Your task to perform on an android device: Empty the shopping cart on costco.com. Add "acer nitro" to the cart on costco.com Image 0: 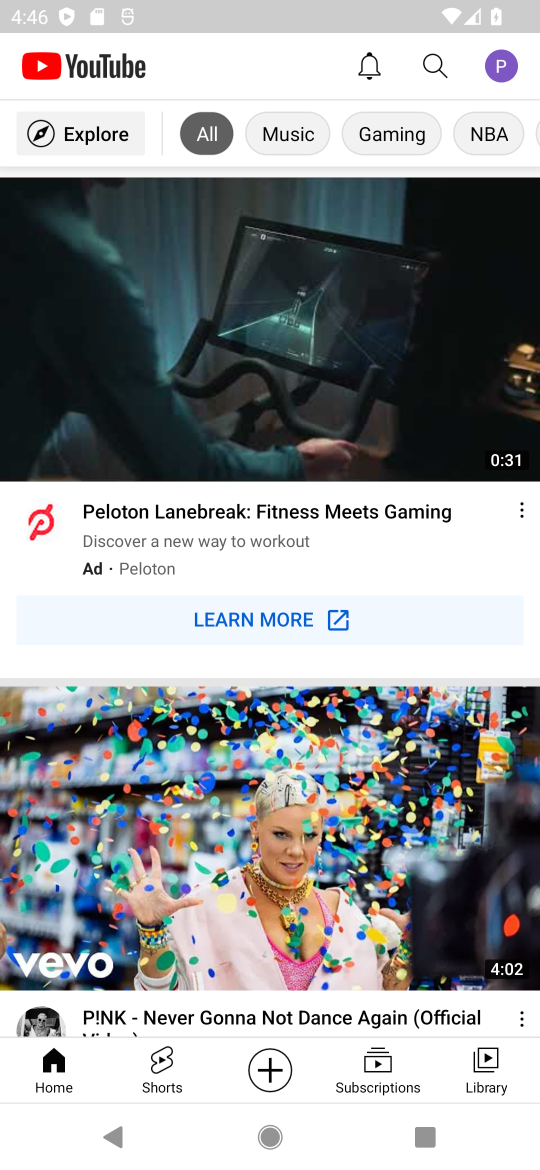
Step 0: press home button
Your task to perform on an android device: Empty the shopping cart on costco.com. Add "acer nitro" to the cart on costco.com Image 1: 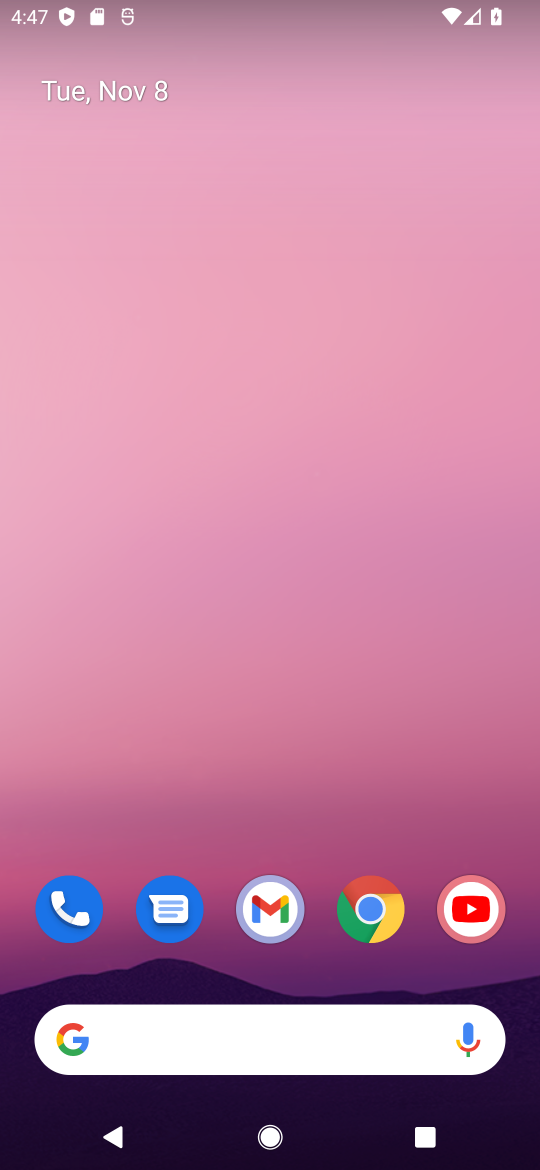
Step 1: click (373, 923)
Your task to perform on an android device: Empty the shopping cart on costco.com. Add "acer nitro" to the cart on costco.com Image 2: 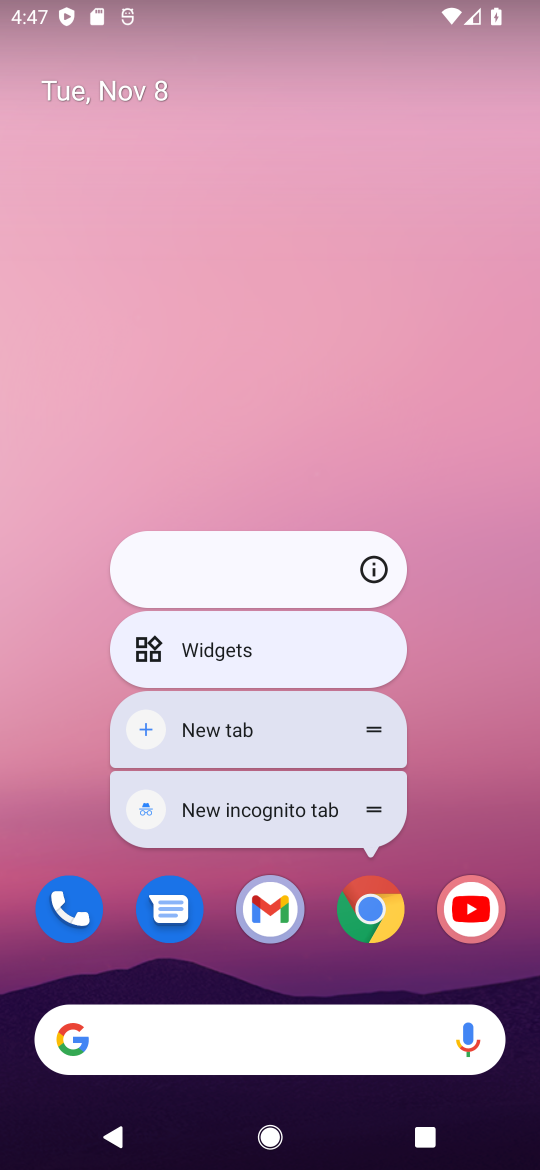
Step 2: click (368, 914)
Your task to perform on an android device: Empty the shopping cart on costco.com. Add "acer nitro" to the cart on costco.com Image 3: 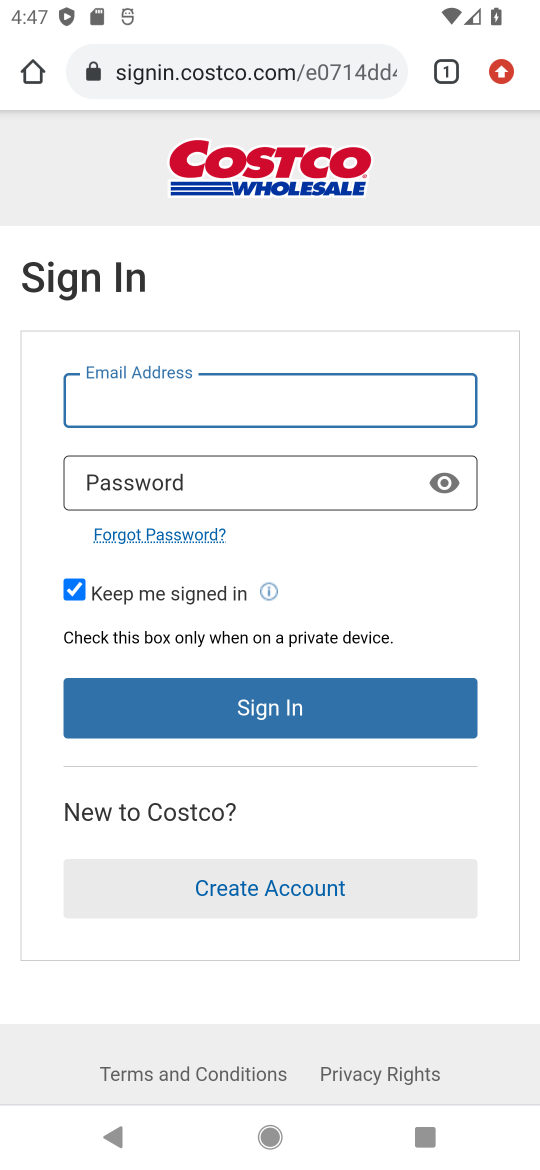
Step 3: press back button
Your task to perform on an android device: Empty the shopping cart on costco.com. Add "acer nitro" to the cart on costco.com Image 4: 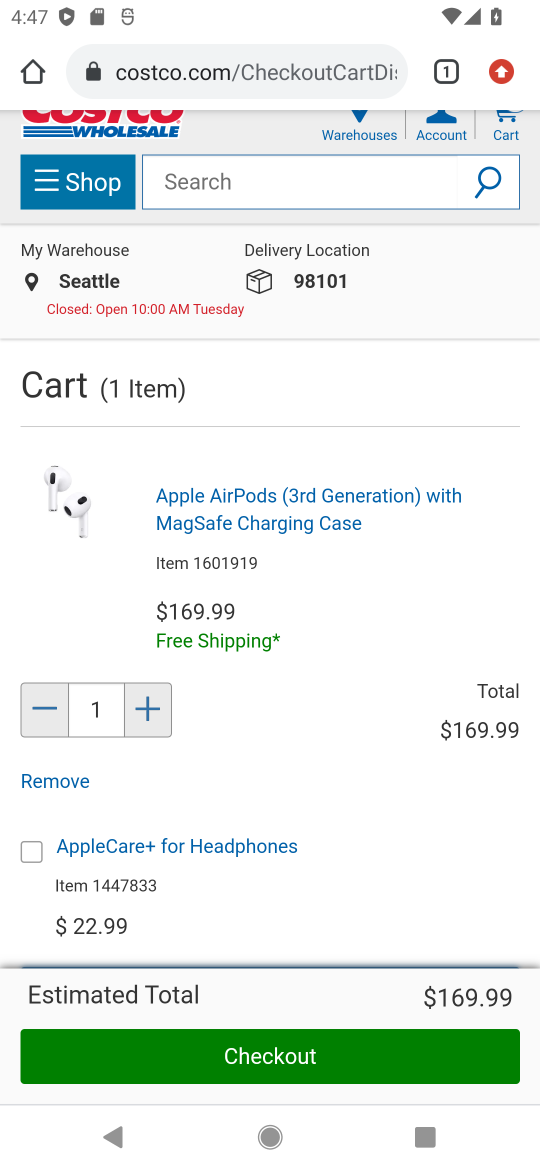
Step 4: click (57, 770)
Your task to perform on an android device: Empty the shopping cart on costco.com. Add "acer nitro" to the cart on costco.com Image 5: 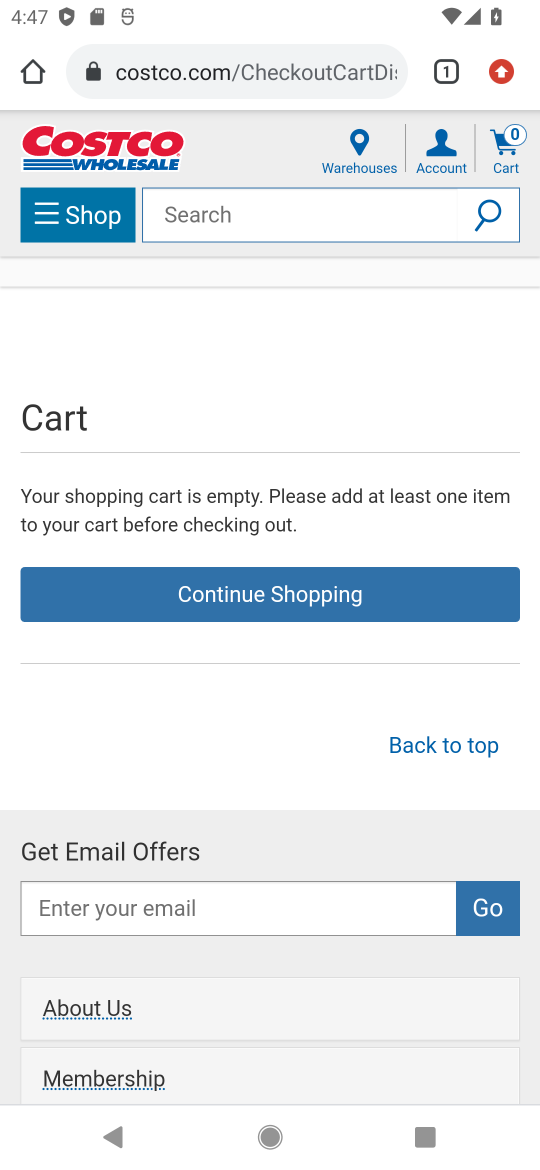
Step 5: click (236, 210)
Your task to perform on an android device: Empty the shopping cart on costco.com. Add "acer nitro" to the cart on costco.com Image 6: 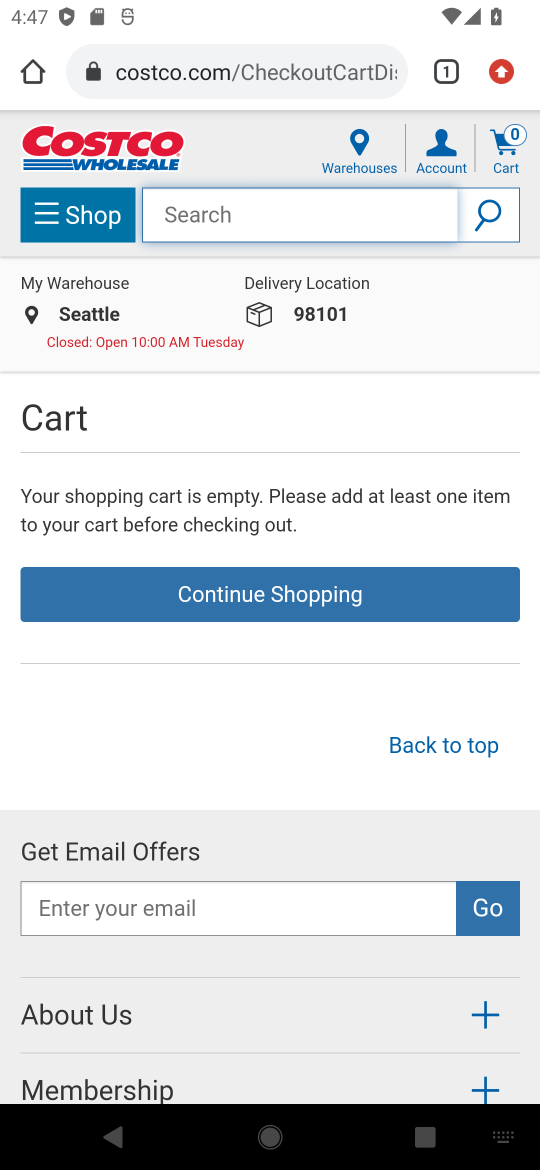
Step 6: type "acer nitro"
Your task to perform on an android device: Empty the shopping cart on costco.com. Add "acer nitro" to the cart on costco.com Image 7: 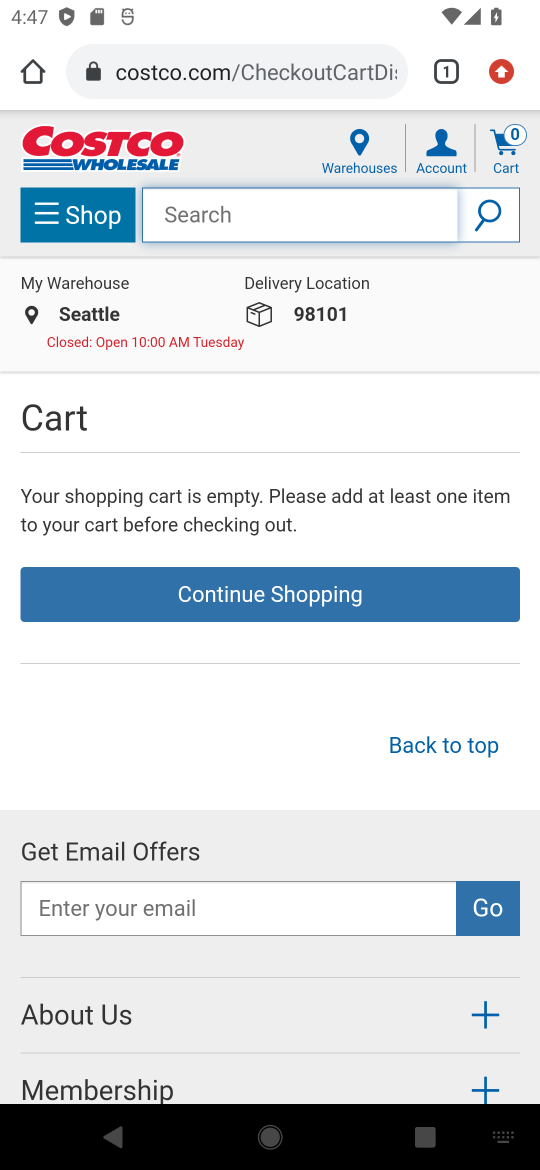
Step 7: press enter
Your task to perform on an android device: Empty the shopping cart on costco.com. Add "acer nitro" to the cart on costco.com Image 8: 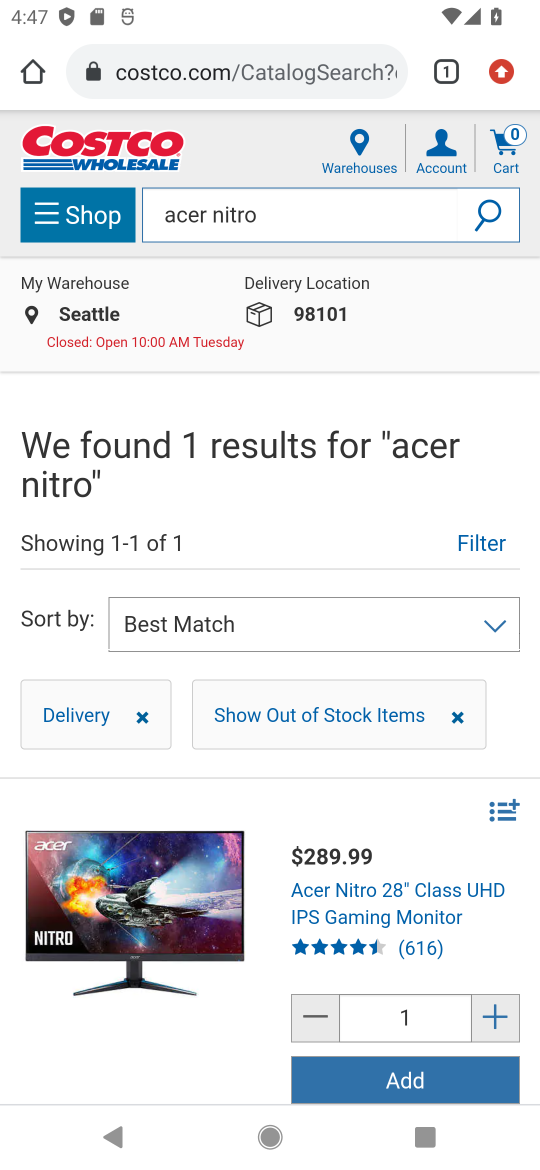
Step 8: drag from (269, 868) to (409, 314)
Your task to perform on an android device: Empty the shopping cart on costco.com. Add "acer nitro" to the cart on costco.com Image 9: 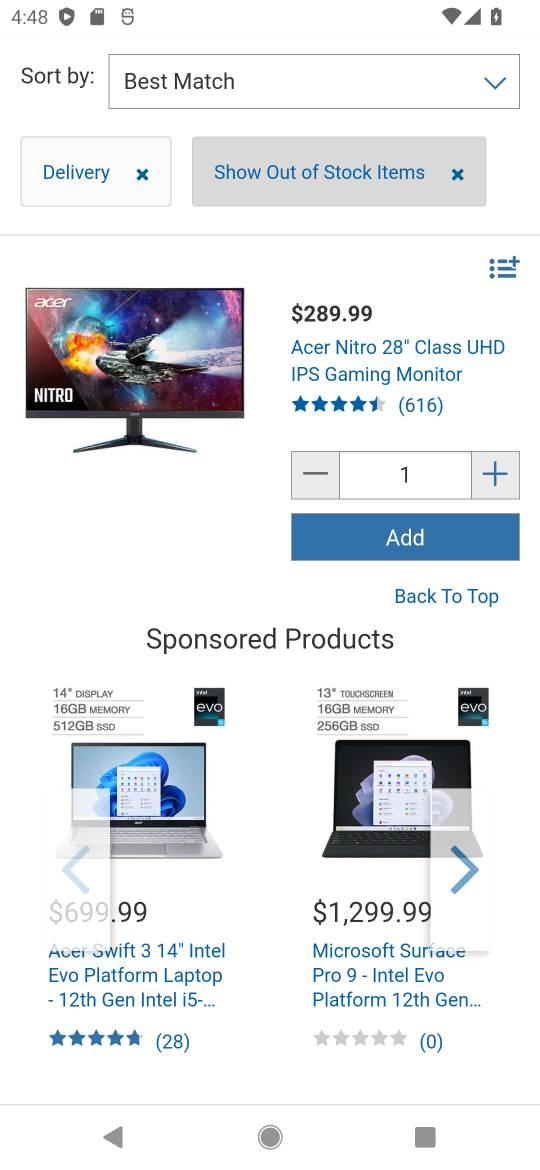
Step 9: click (422, 544)
Your task to perform on an android device: Empty the shopping cart on costco.com. Add "acer nitro" to the cart on costco.com Image 10: 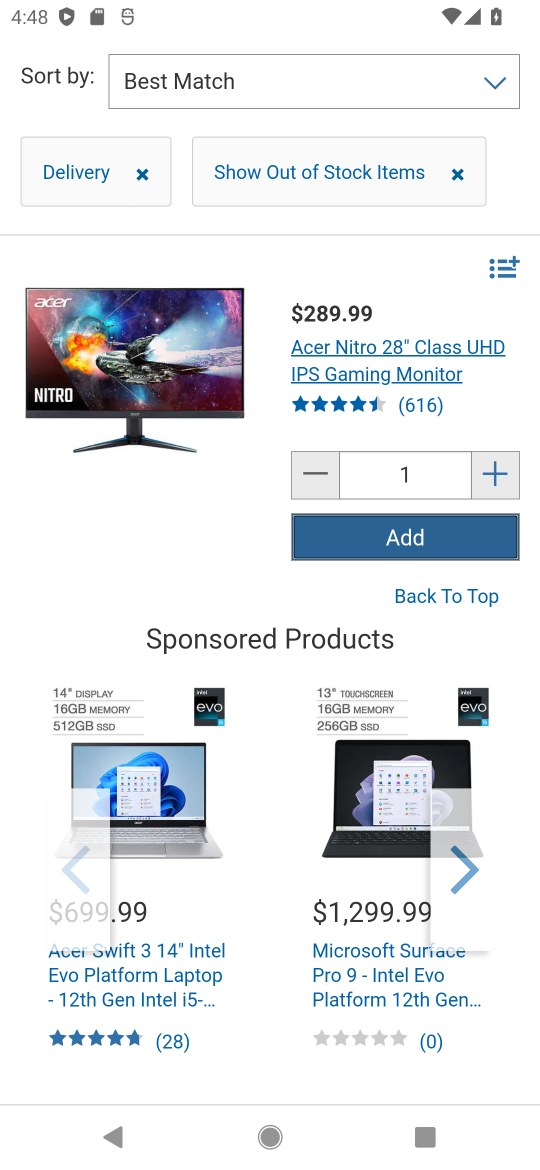
Step 10: click (405, 537)
Your task to perform on an android device: Empty the shopping cart on costco.com. Add "acer nitro" to the cart on costco.com Image 11: 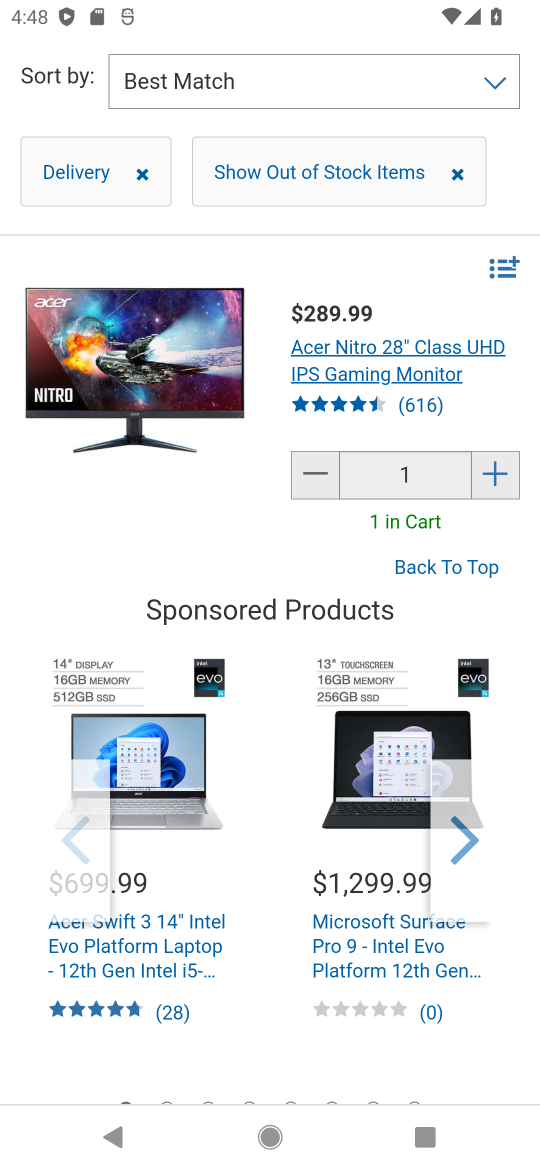
Step 11: drag from (293, 254) to (299, 814)
Your task to perform on an android device: Empty the shopping cart on costco.com. Add "acer nitro" to the cart on costco.com Image 12: 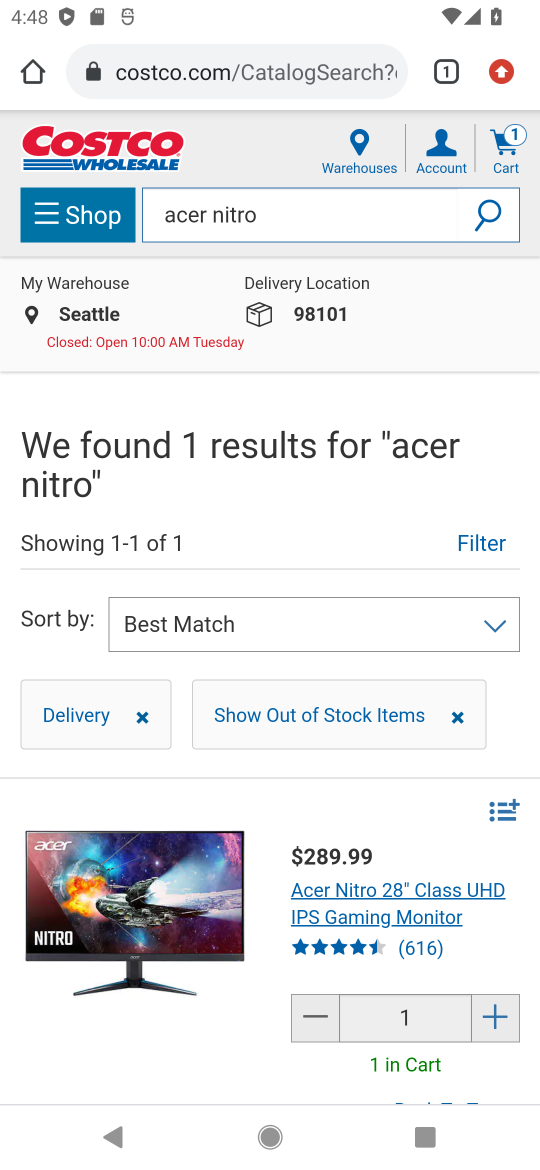
Step 12: click (504, 135)
Your task to perform on an android device: Empty the shopping cart on costco.com. Add "acer nitro" to the cart on costco.com Image 13: 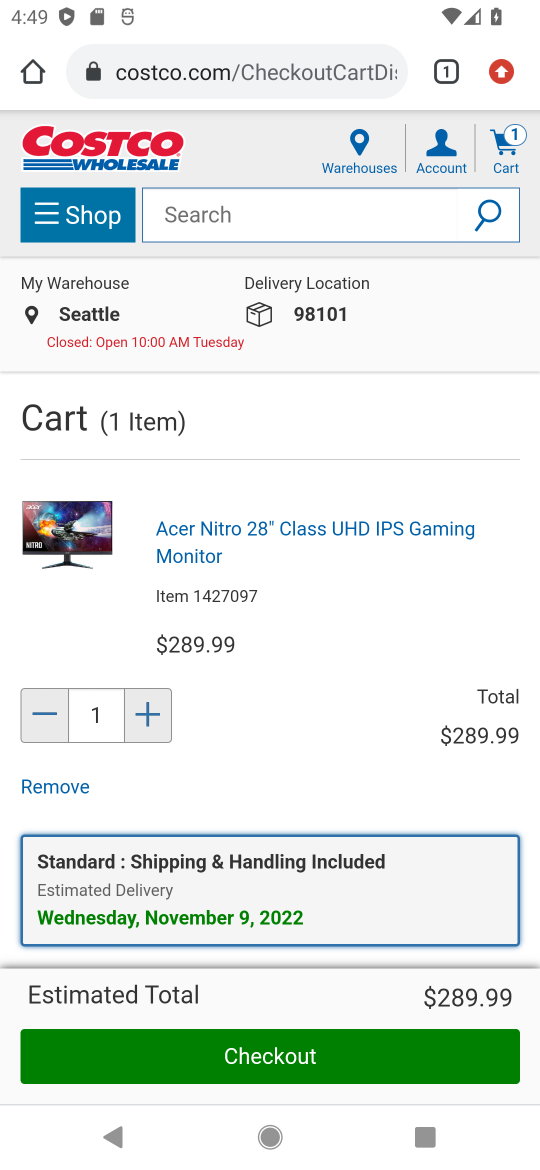
Step 13: task complete